Your task to perform on an android device: Open network settings Image 0: 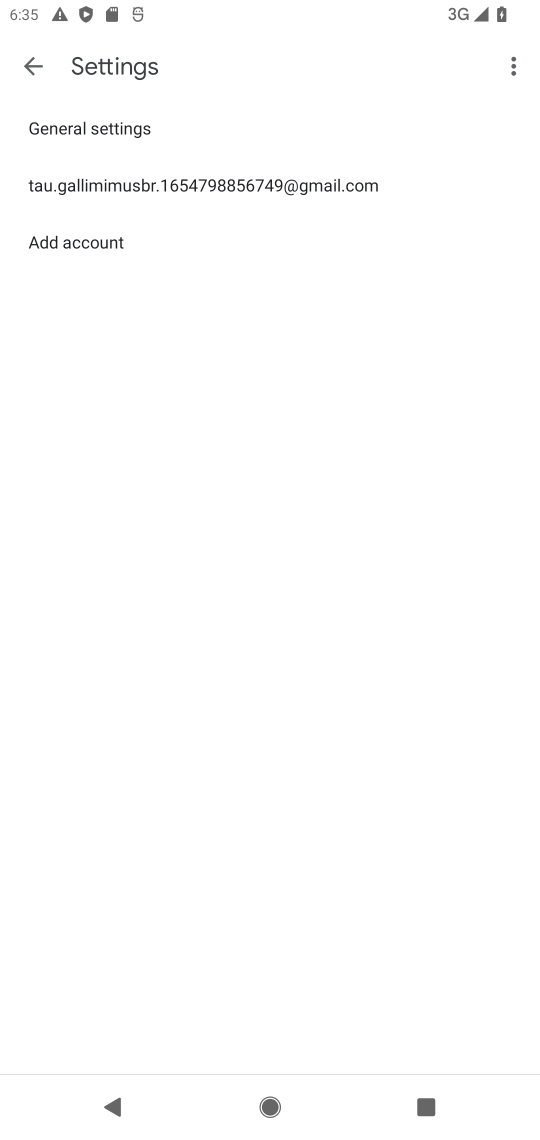
Step 0: press home button
Your task to perform on an android device: Open network settings Image 1: 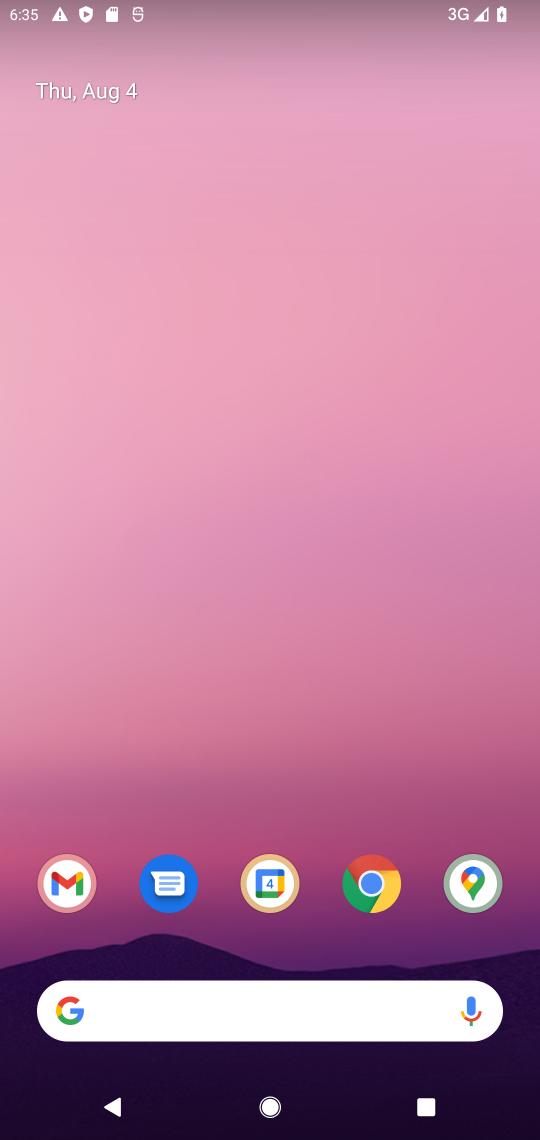
Step 1: drag from (430, 809) to (276, 41)
Your task to perform on an android device: Open network settings Image 2: 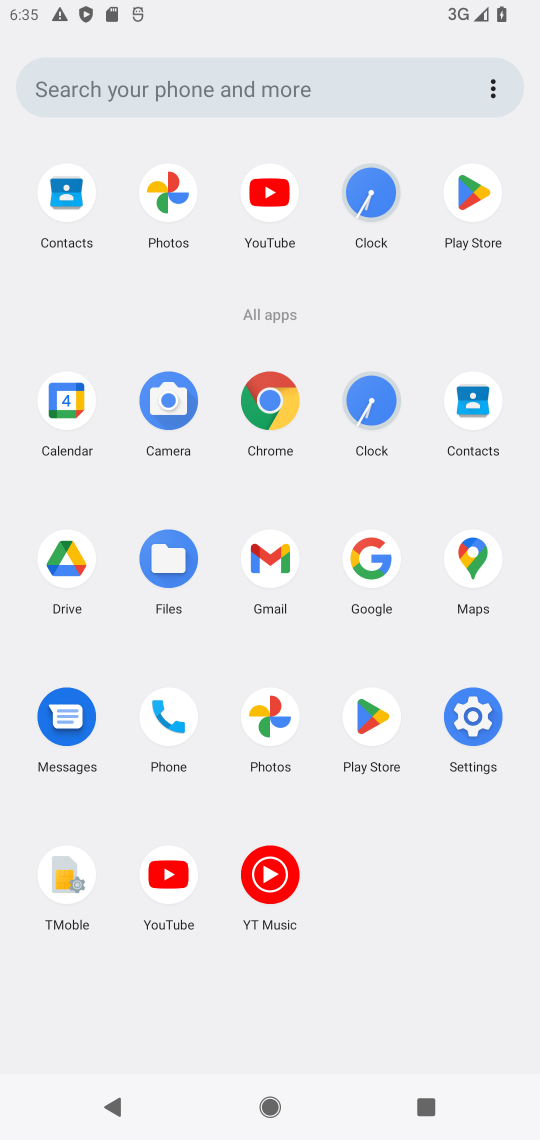
Step 2: click (500, 717)
Your task to perform on an android device: Open network settings Image 3: 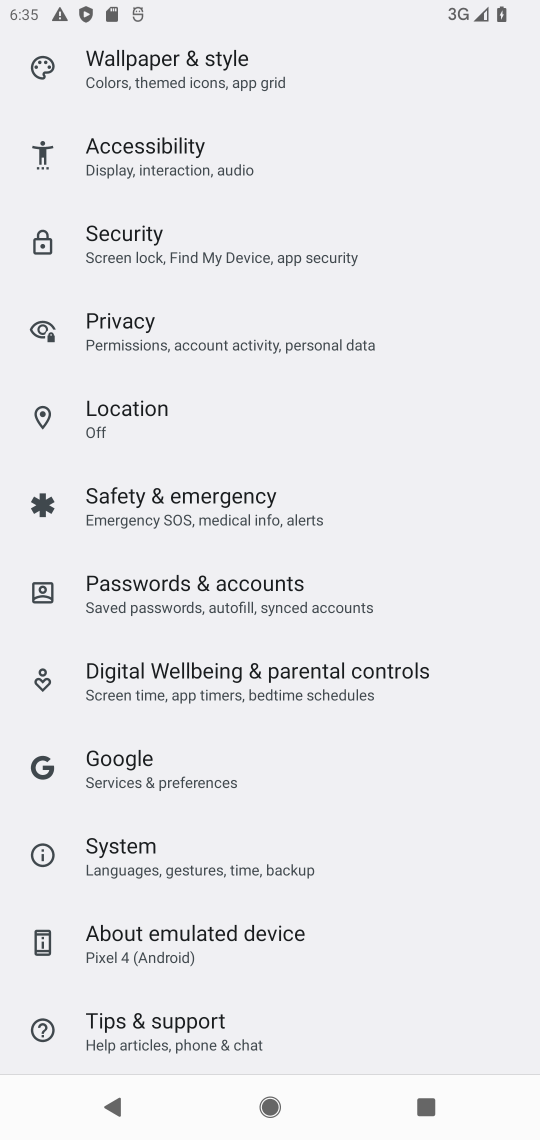
Step 3: drag from (230, 123) to (275, 1129)
Your task to perform on an android device: Open network settings Image 4: 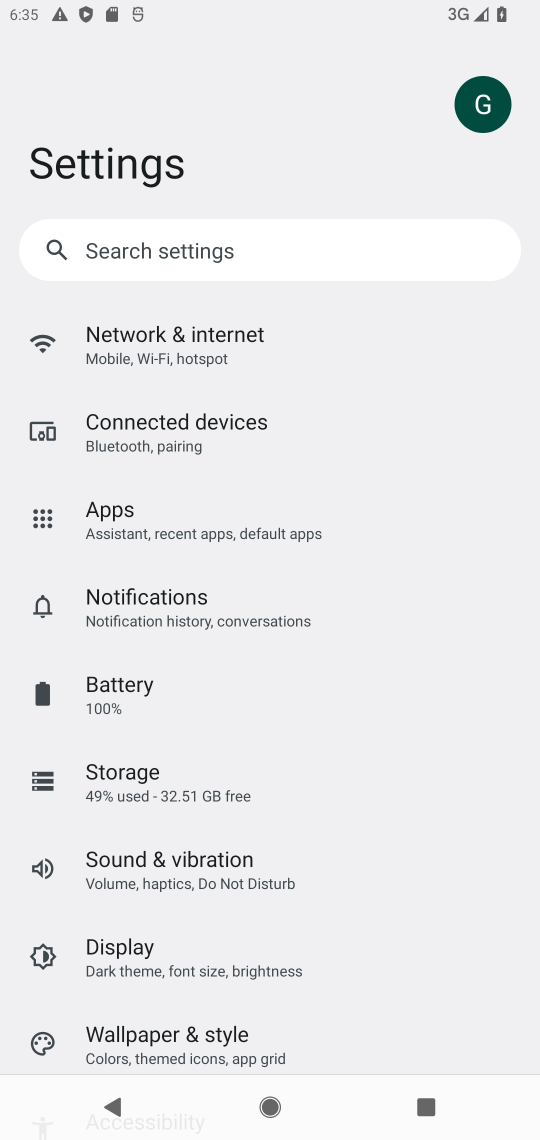
Step 4: click (241, 339)
Your task to perform on an android device: Open network settings Image 5: 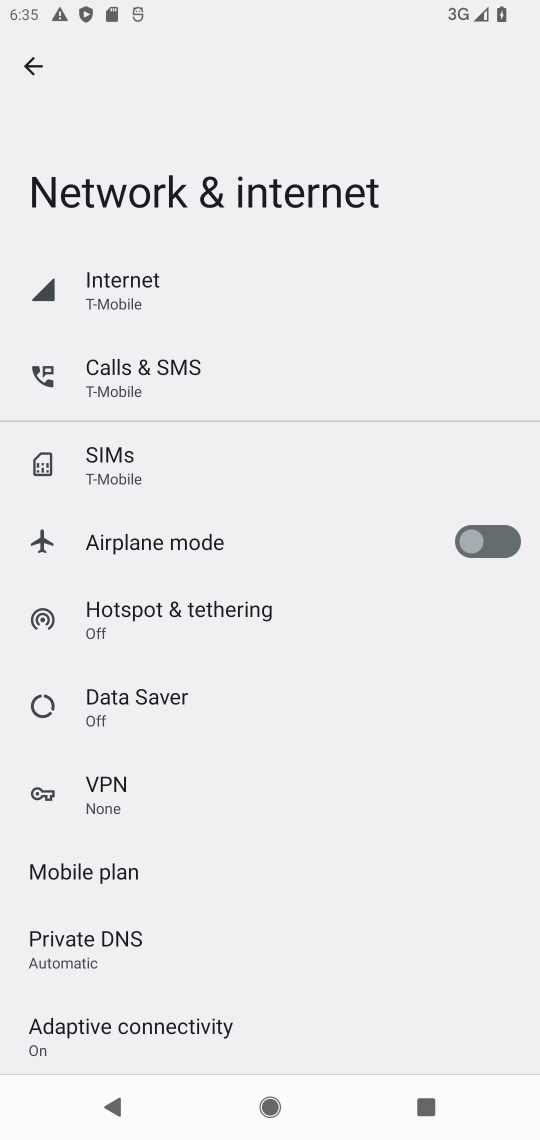
Step 5: task complete